Your task to perform on an android device: turn off notifications in google photos Image 0: 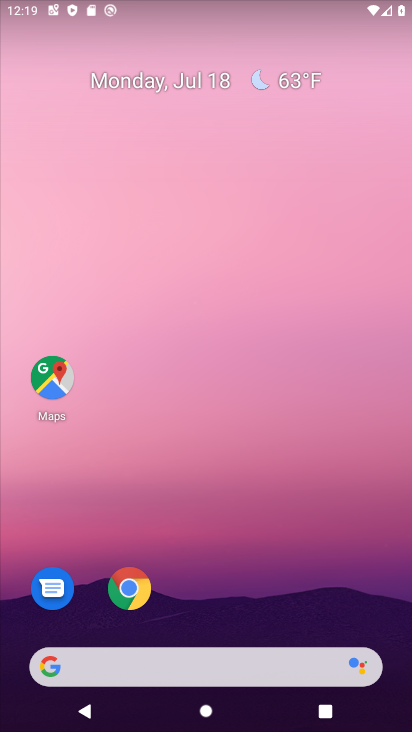
Step 0: drag from (232, 514) to (252, 37)
Your task to perform on an android device: turn off notifications in google photos Image 1: 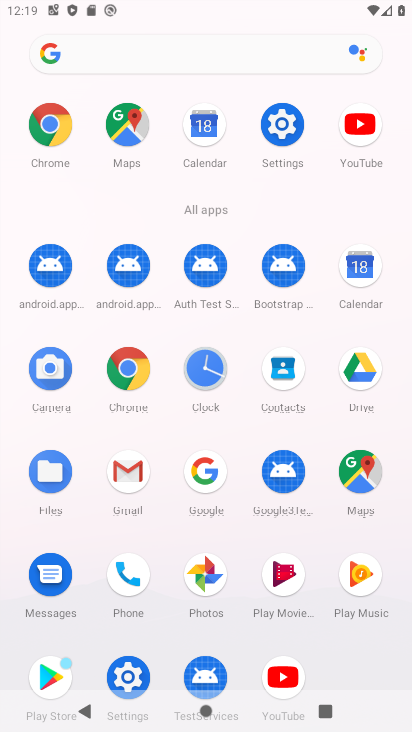
Step 1: click (209, 578)
Your task to perform on an android device: turn off notifications in google photos Image 2: 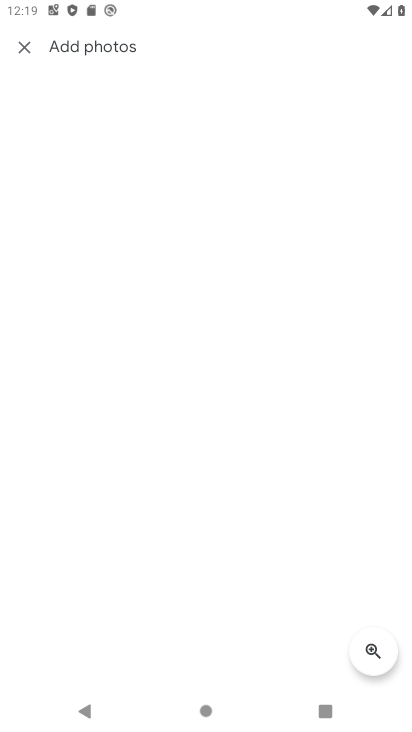
Step 2: click (22, 40)
Your task to perform on an android device: turn off notifications in google photos Image 3: 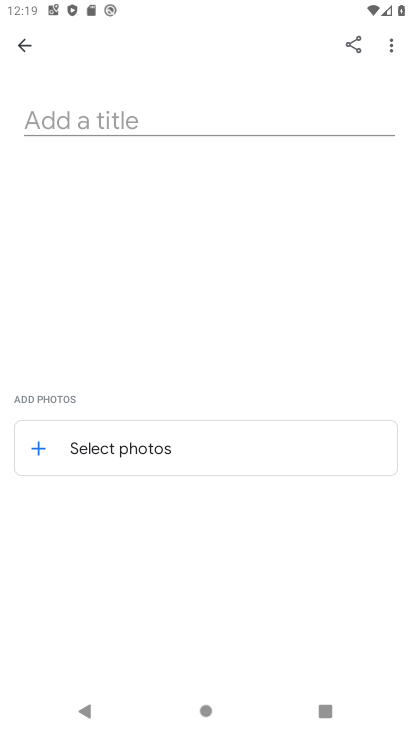
Step 3: click (26, 42)
Your task to perform on an android device: turn off notifications in google photos Image 4: 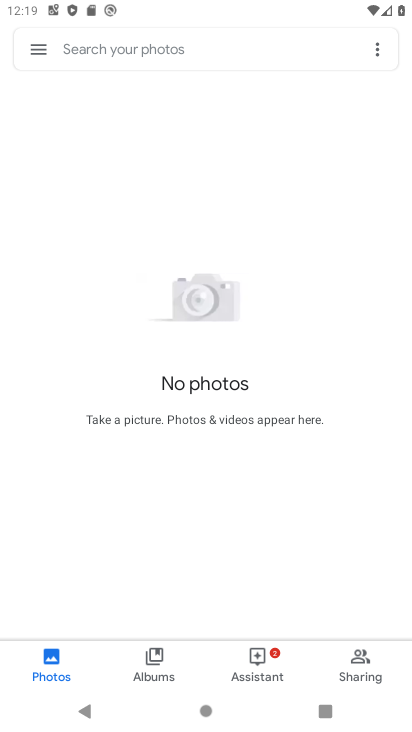
Step 4: click (33, 47)
Your task to perform on an android device: turn off notifications in google photos Image 5: 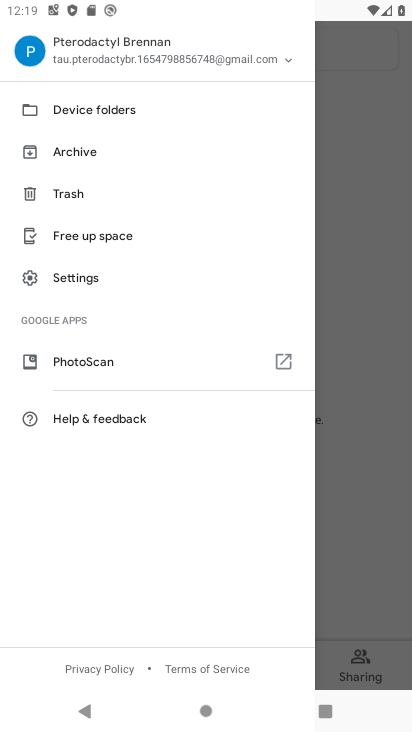
Step 5: click (78, 275)
Your task to perform on an android device: turn off notifications in google photos Image 6: 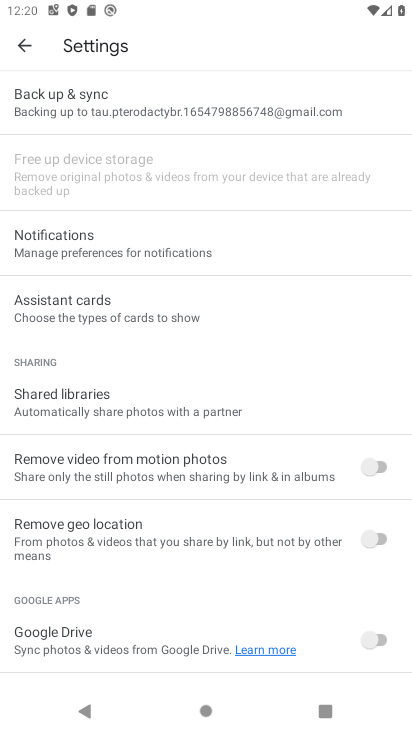
Step 6: click (64, 239)
Your task to perform on an android device: turn off notifications in google photos Image 7: 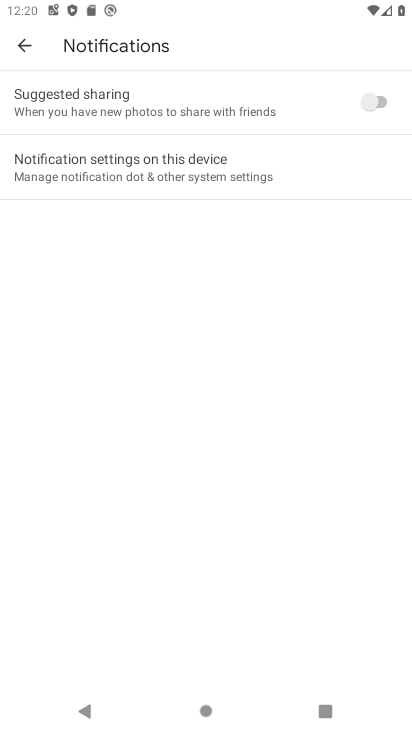
Step 7: click (107, 173)
Your task to perform on an android device: turn off notifications in google photos Image 8: 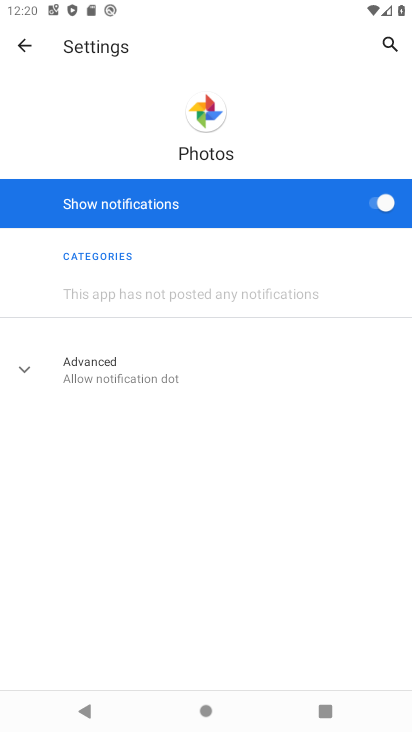
Step 8: click (375, 205)
Your task to perform on an android device: turn off notifications in google photos Image 9: 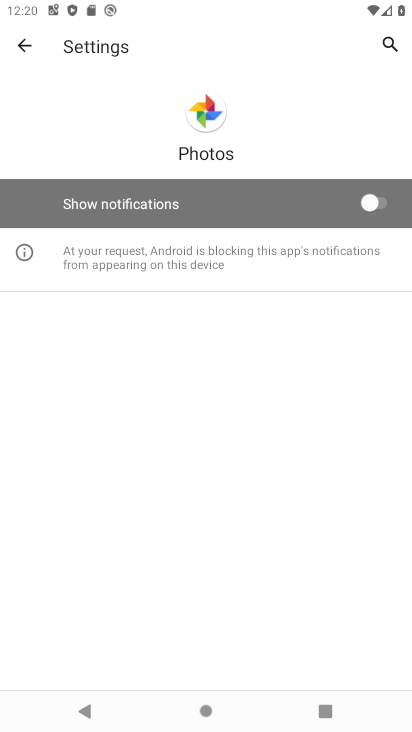
Step 9: task complete